Your task to perform on an android device: Check the latest toasters on Target. Image 0: 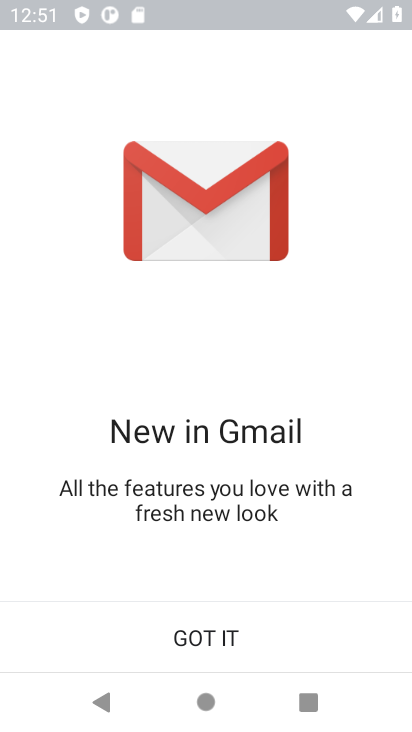
Step 0: press home button
Your task to perform on an android device: Check the latest toasters on Target. Image 1: 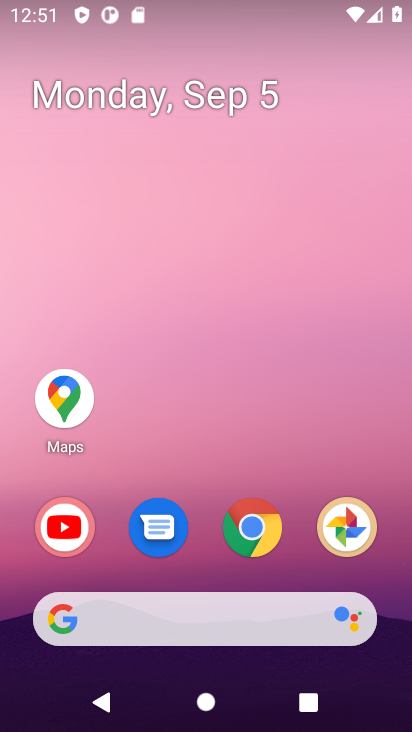
Step 1: click (247, 537)
Your task to perform on an android device: Check the latest toasters on Target. Image 2: 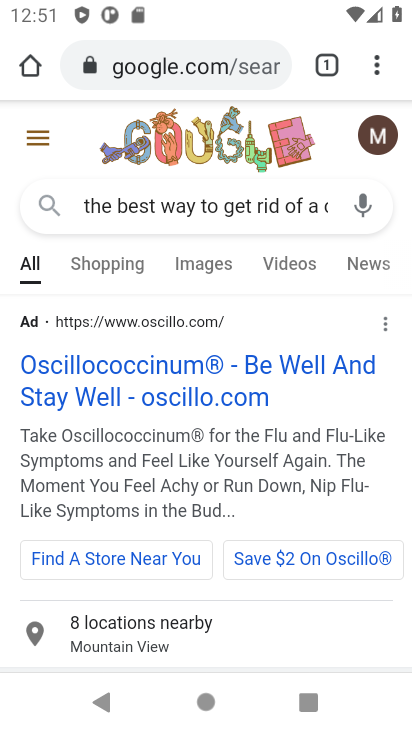
Step 2: click (193, 75)
Your task to perform on an android device: Check the latest toasters on Target. Image 3: 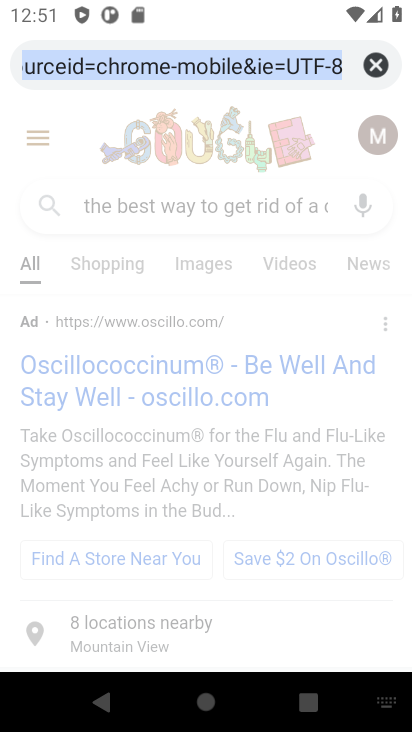
Step 3: type "Target."
Your task to perform on an android device: Check the latest toasters on Target. Image 4: 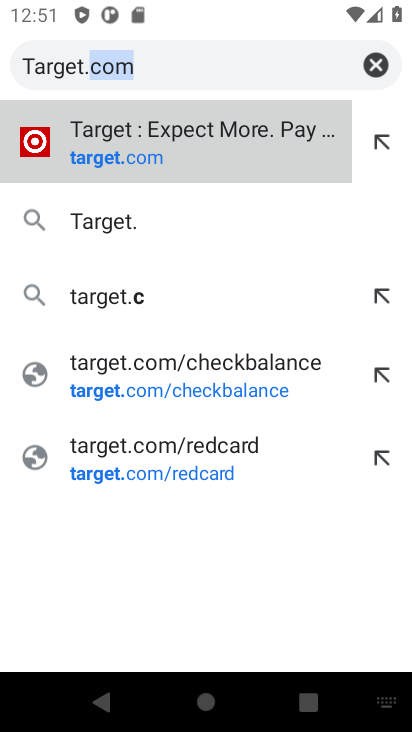
Step 4: click (194, 159)
Your task to perform on an android device: Check the latest toasters on Target. Image 5: 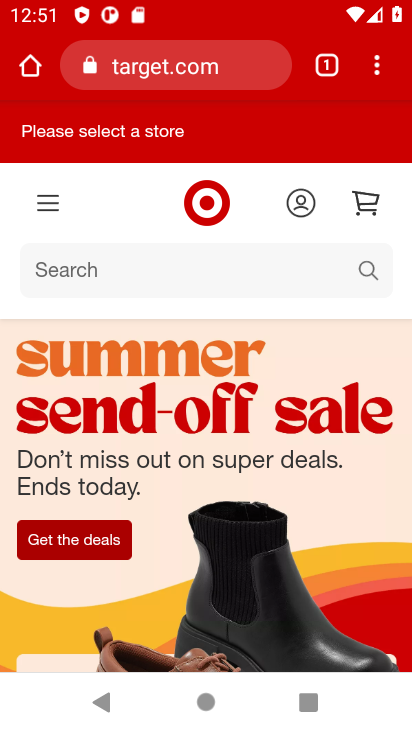
Step 5: click (253, 279)
Your task to perform on an android device: Check the latest toasters on Target. Image 6: 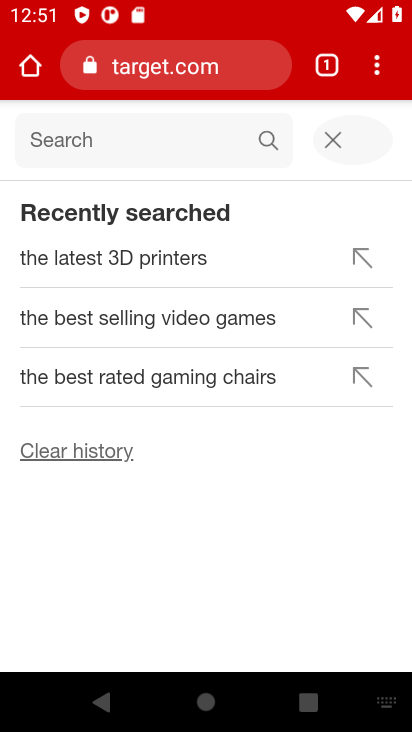
Step 6: type "the latest toasters "
Your task to perform on an android device: Check the latest toasters on Target. Image 7: 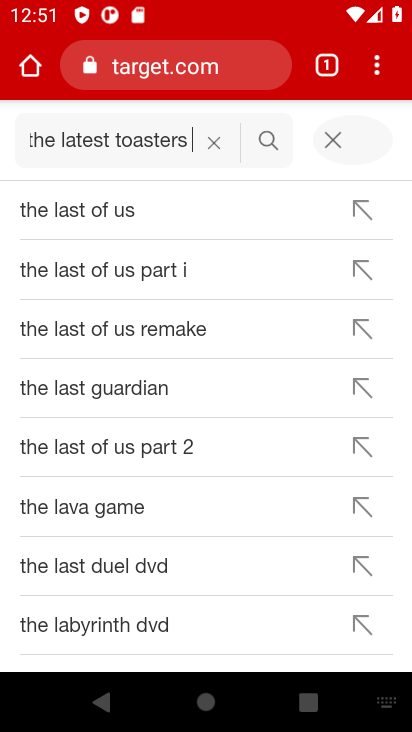
Step 7: click (264, 143)
Your task to perform on an android device: Check the latest toasters on Target. Image 8: 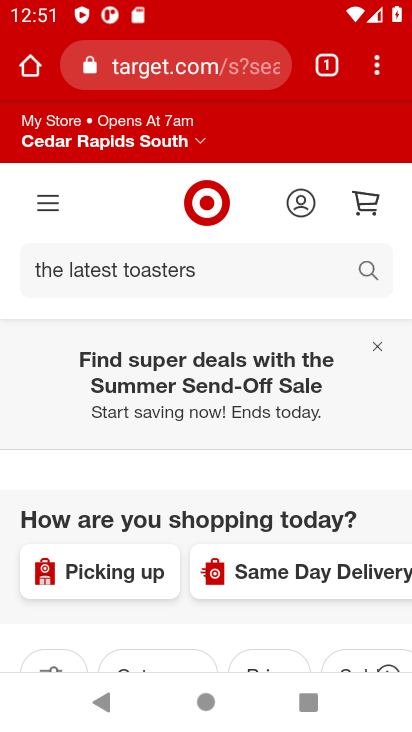
Step 8: task complete